Your task to perform on an android device: turn on priority inbox in the gmail app Image 0: 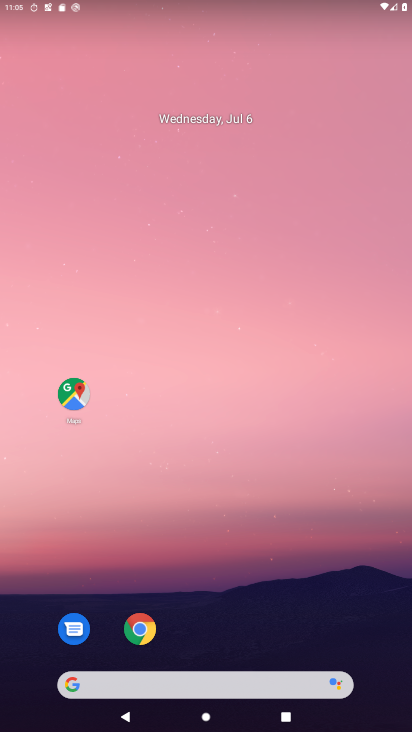
Step 0: press home button
Your task to perform on an android device: turn on priority inbox in the gmail app Image 1: 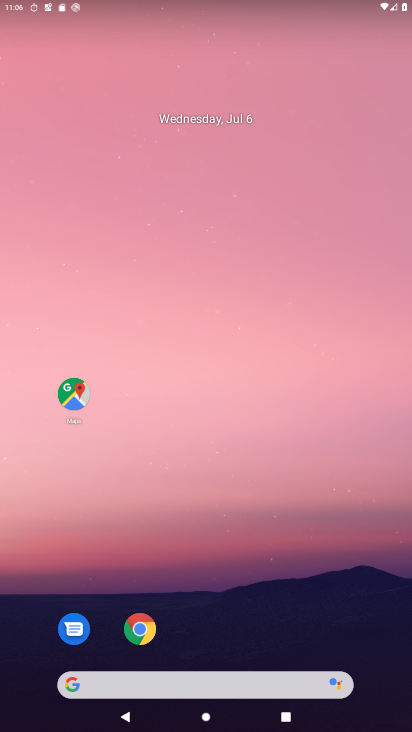
Step 1: drag from (217, 642) to (271, 16)
Your task to perform on an android device: turn on priority inbox in the gmail app Image 2: 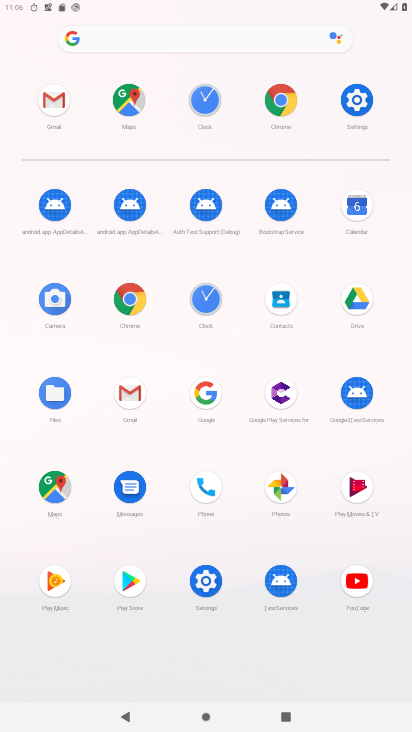
Step 2: click (51, 97)
Your task to perform on an android device: turn on priority inbox in the gmail app Image 3: 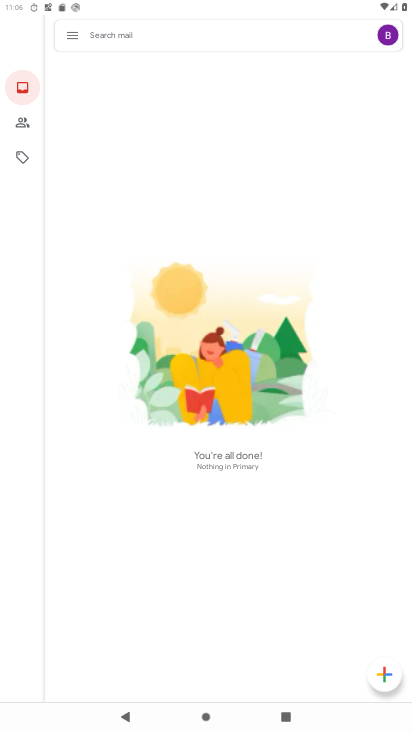
Step 3: click (73, 34)
Your task to perform on an android device: turn on priority inbox in the gmail app Image 4: 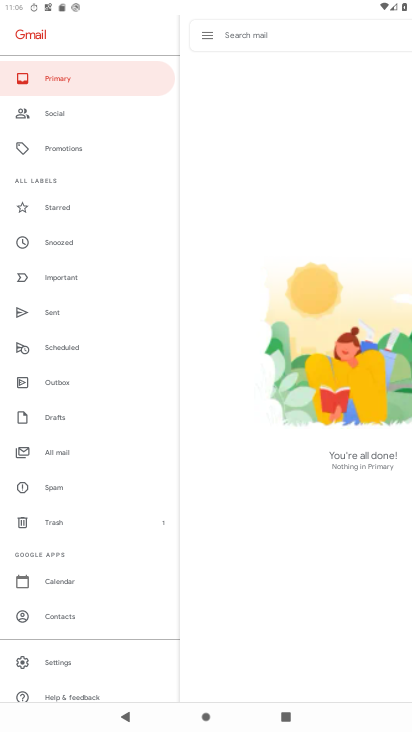
Step 4: click (79, 657)
Your task to perform on an android device: turn on priority inbox in the gmail app Image 5: 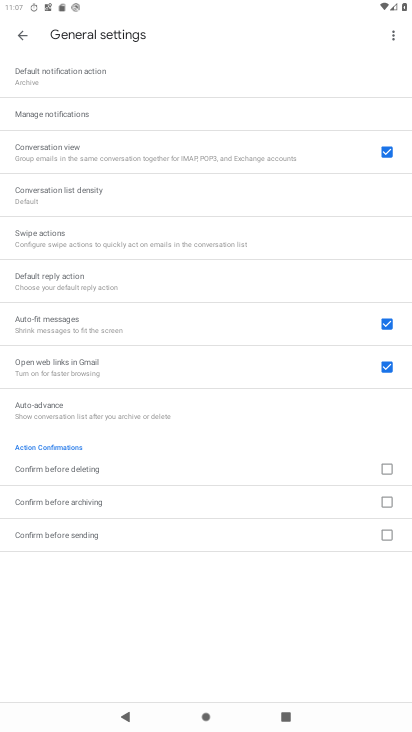
Step 5: click (26, 43)
Your task to perform on an android device: turn on priority inbox in the gmail app Image 6: 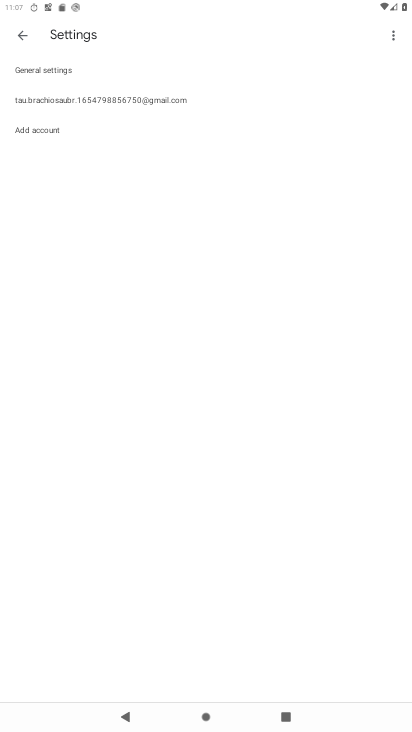
Step 6: click (53, 105)
Your task to perform on an android device: turn on priority inbox in the gmail app Image 7: 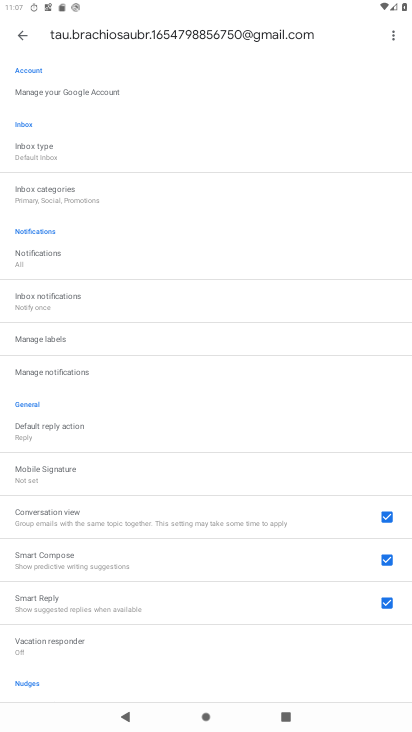
Step 7: click (71, 151)
Your task to perform on an android device: turn on priority inbox in the gmail app Image 8: 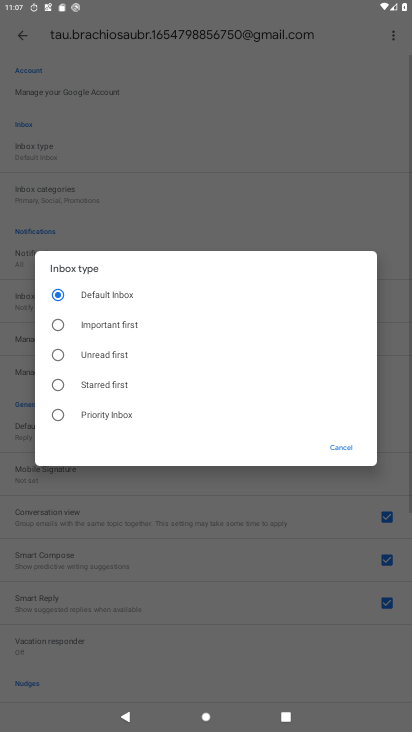
Step 8: click (58, 415)
Your task to perform on an android device: turn on priority inbox in the gmail app Image 9: 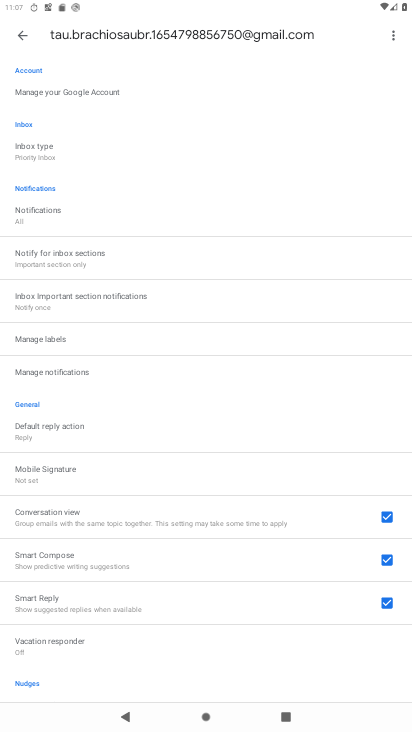
Step 9: task complete